Your task to perform on an android device: Search for seafood restaurants on Google Maps Image 0: 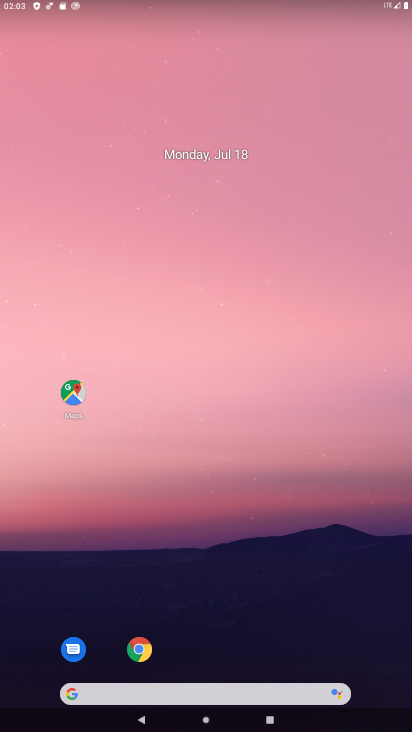
Step 0: click (77, 398)
Your task to perform on an android device: Search for seafood restaurants on Google Maps Image 1: 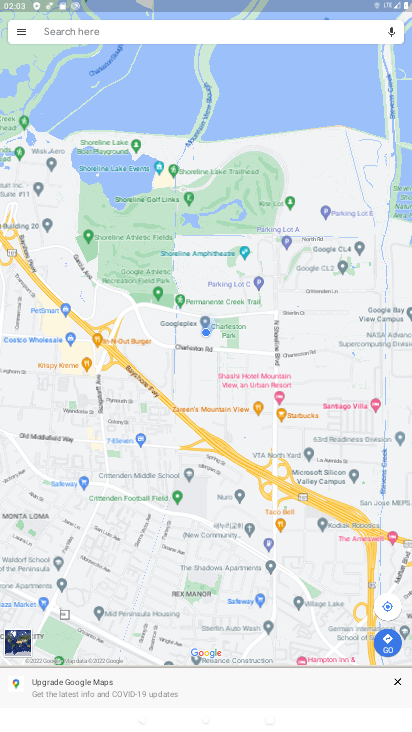
Step 1: click (169, 34)
Your task to perform on an android device: Search for seafood restaurants on Google Maps Image 2: 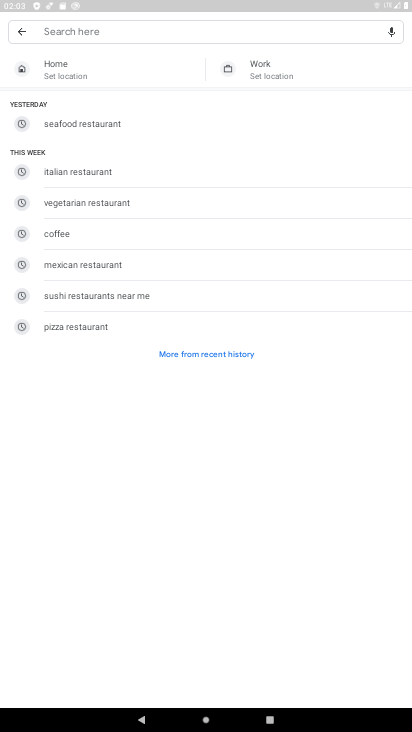
Step 2: click (99, 121)
Your task to perform on an android device: Search for seafood restaurants on Google Maps Image 3: 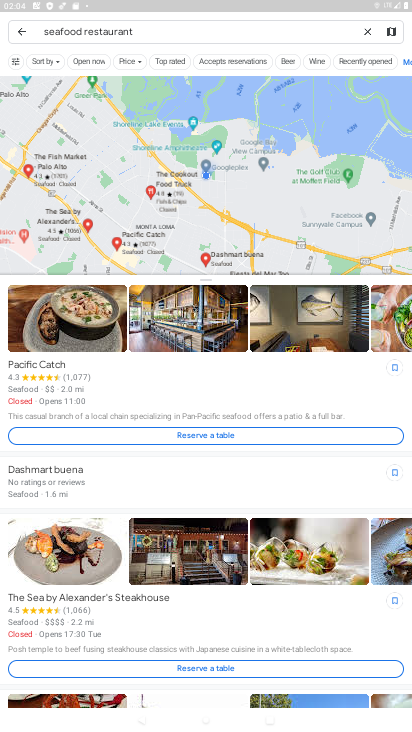
Step 3: task complete